Your task to perform on an android device: What is the recent news? Image 0: 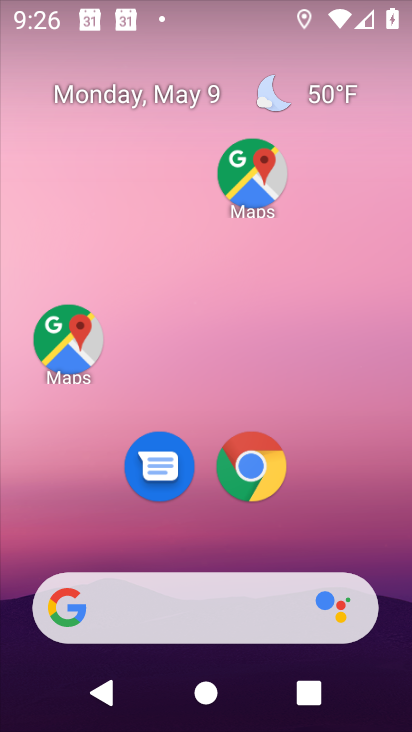
Step 0: drag from (315, 545) to (281, 103)
Your task to perform on an android device: What is the recent news? Image 1: 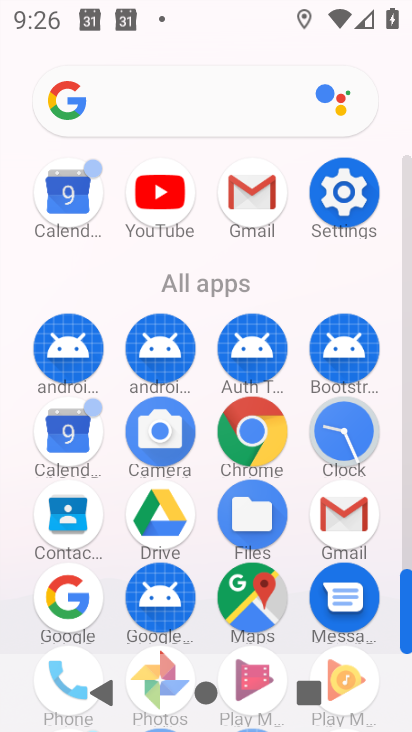
Step 1: click (173, 120)
Your task to perform on an android device: What is the recent news? Image 2: 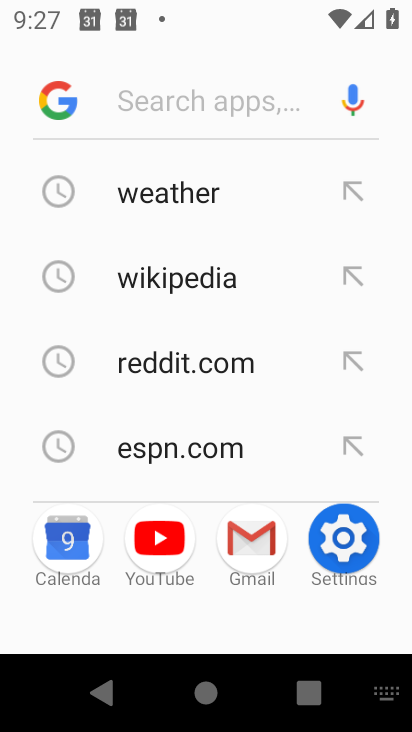
Step 2: type "what is the recent news"
Your task to perform on an android device: What is the recent news? Image 3: 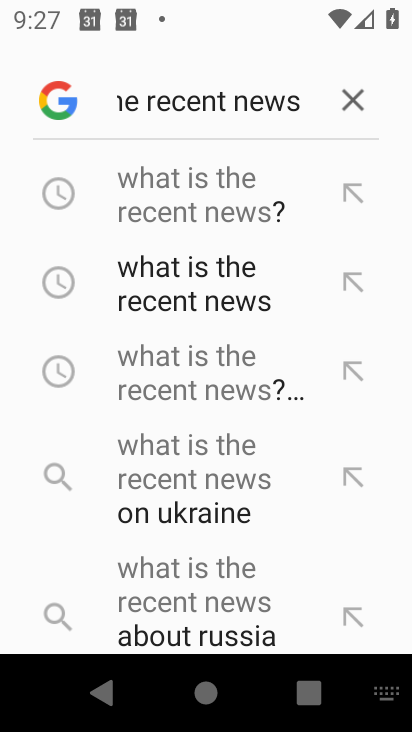
Step 3: click (175, 170)
Your task to perform on an android device: What is the recent news? Image 4: 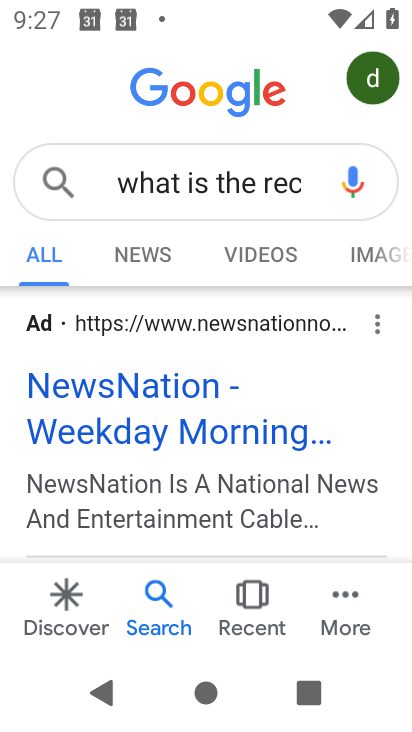
Step 4: click (158, 255)
Your task to perform on an android device: What is the recent news? Image 5: 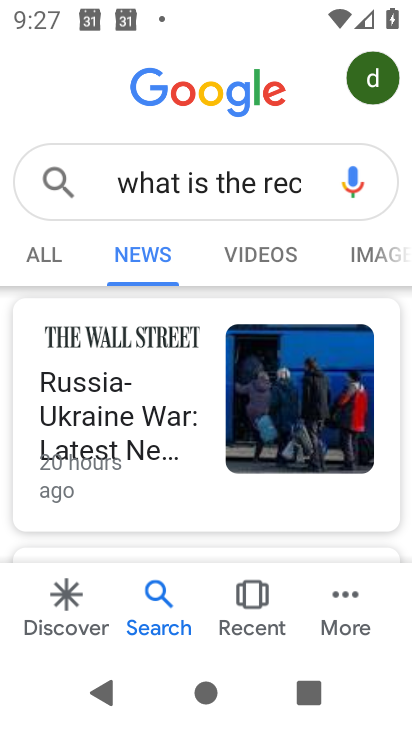
Step 5: task complete